Your task to perform on an android device: create a new album in the google photos Image 0: 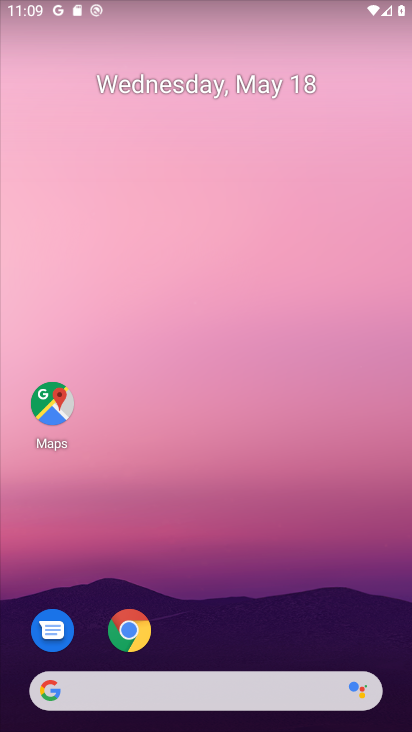
Step 0: drag from (319, 603) to (334, 201)
Your task to perform on an android device: create a new album in the google photos Image 1: 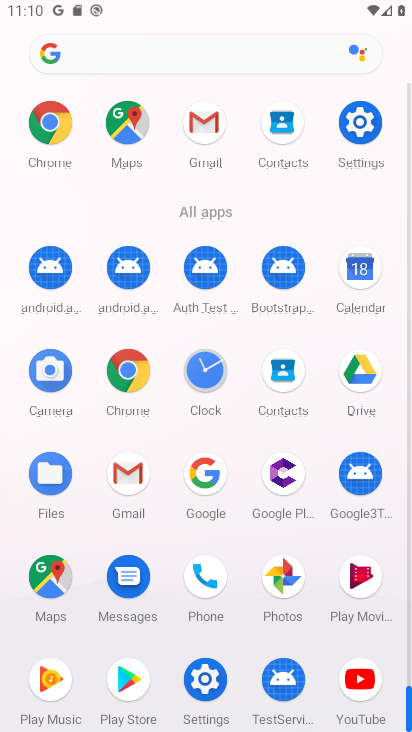
Step 1: click (287, 568)
Your task to perform on an android device: create a new album in the google photos Image 2: 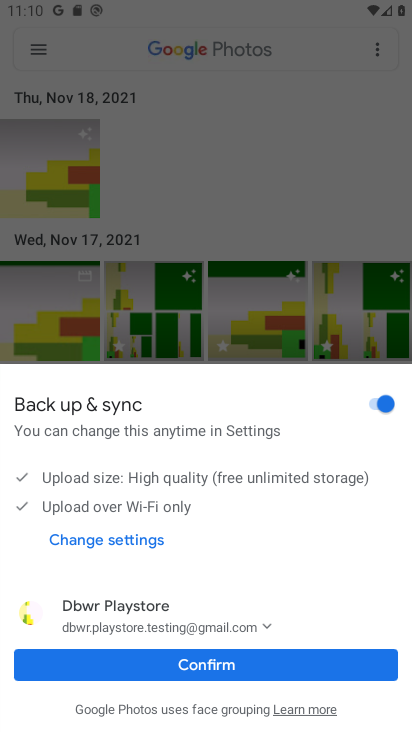
Step 2: click (216, 661)
Your task to perform on an android device: create a new album in the google photos Image 3: 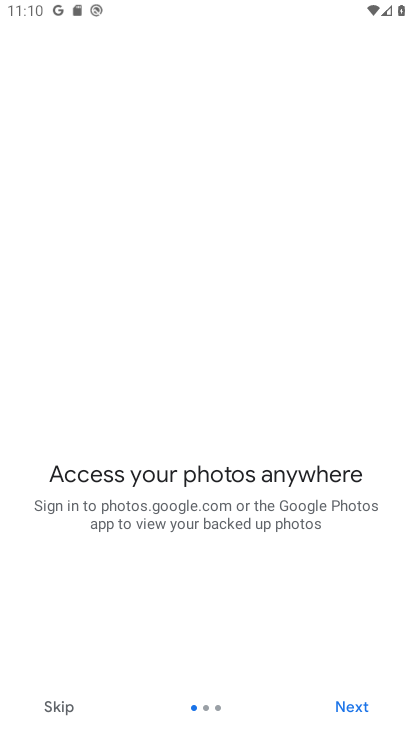
Step 3: click (70, 716)
Your task to perform on an android device: create a new album in the google photos Image 4: 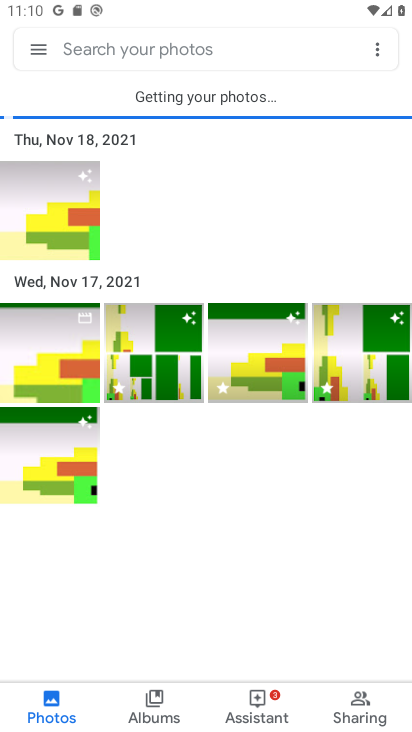
Step 4: click (53, 326)
Your task to perform on an android device: create a new album in the google photos Image 5: 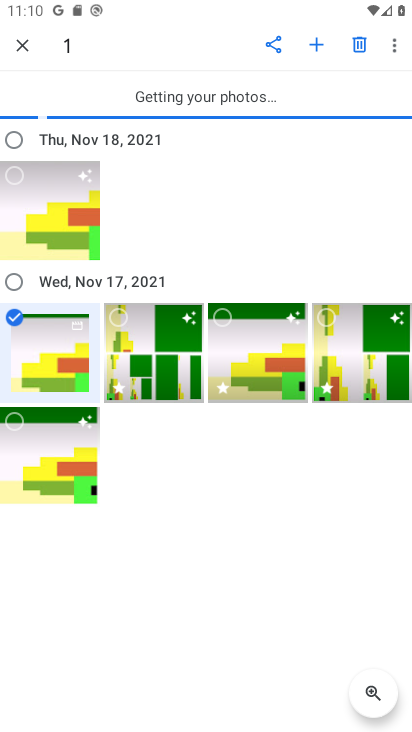
Step 5: click (143, 312)
Your task to perform on an android device: create a new album in the google photos Image 6: 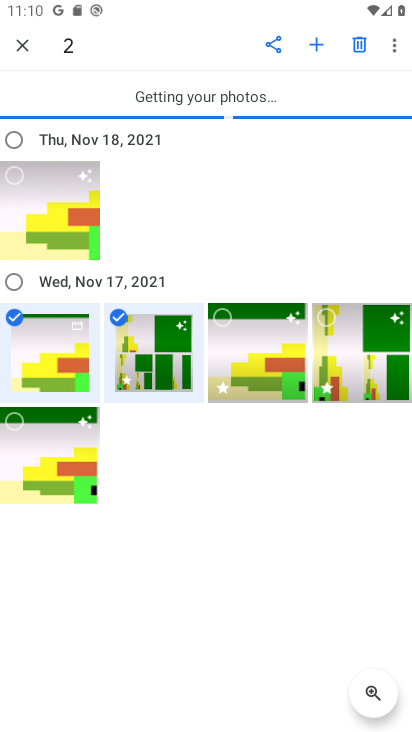
Step 6: click (313, 46)
Your task to perform on an android device: create a new album in the google photos Image 7: 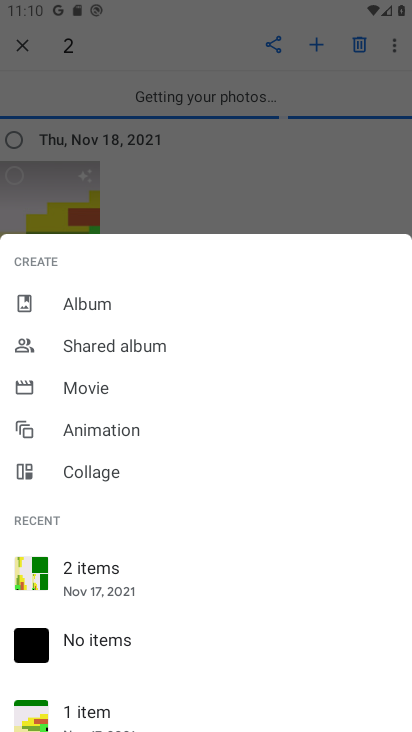
Step 7: click (154, 303)
Your task to perform on an android device: create a new album in the google photos Image 8: 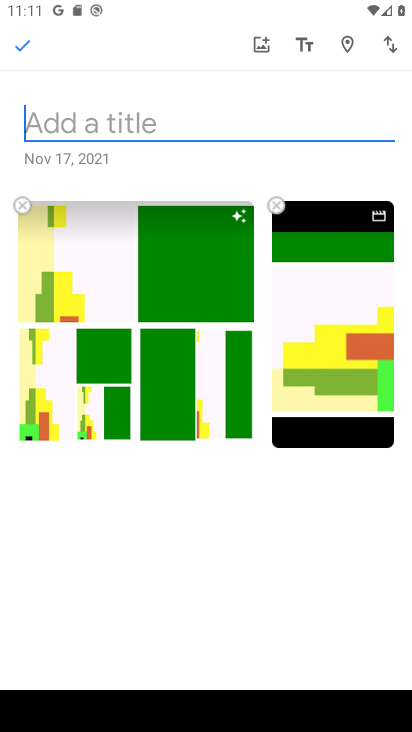
Step 8: type "f"
Your task to perform on an android device: create a new album in the google photos Image 9: 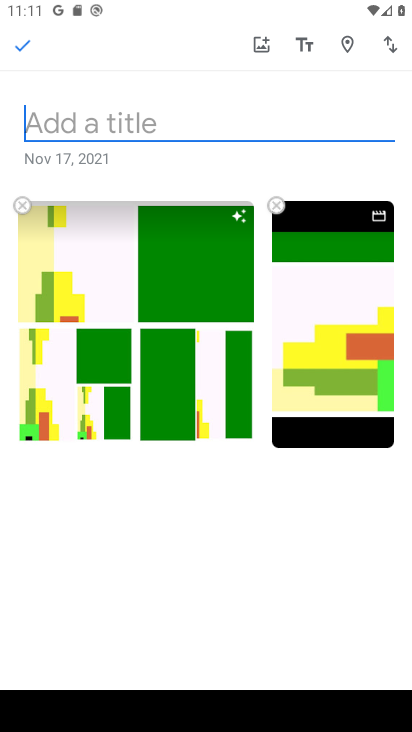
Step 9: click (34, 44)
Your task to perform on an android device: create a new album in the google photos Image 10: 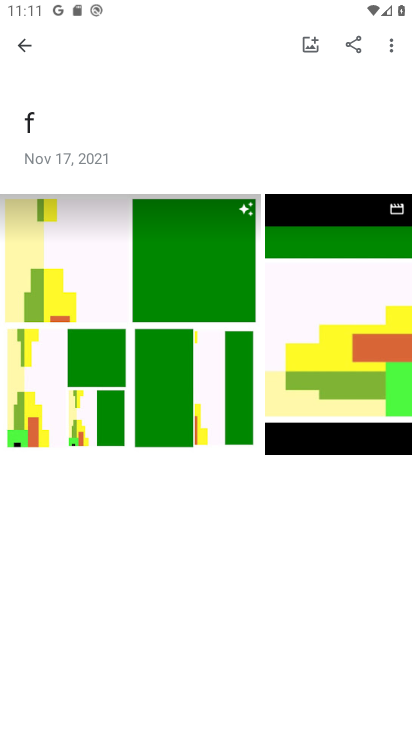
Step 10: task complete